Your task to perform on an android device: Go to Wikipedia Image 0: 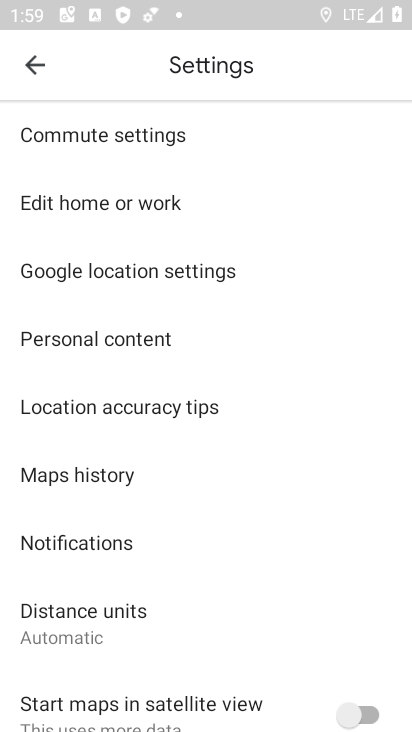
Step 0: press home button
Your task to perform on an android device: Go to Wikipedia Image 1: 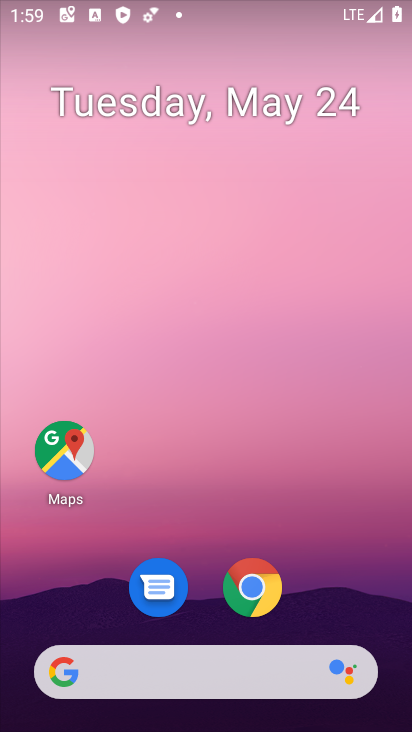
Step 1: drag from (158, 704) to (134, 147)
Your task to perform on an android device: Go to Wikipedia Image 2: 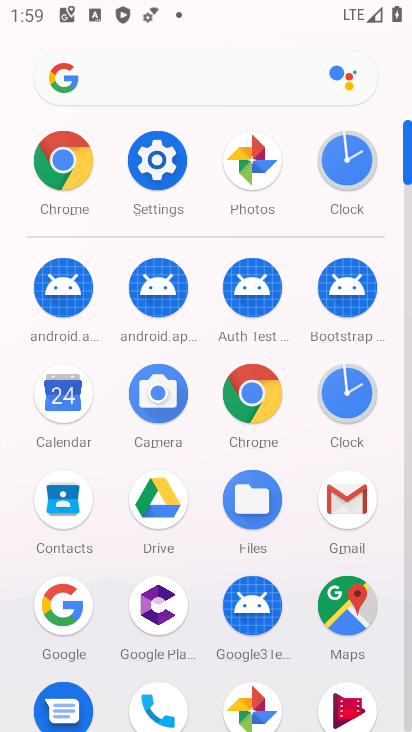
Step 2: click (270, 67)
Your task to perform on an android device: Go to Wikipedia Image 3: 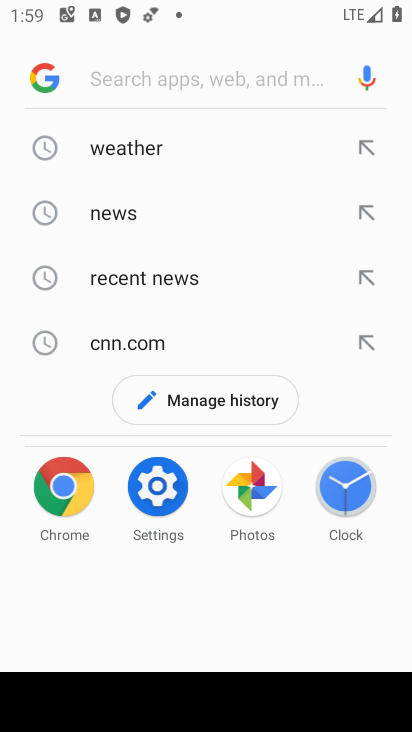
Step 3: type "wikipedia"
Your task to perform on an android device: Go to Wikipedia Image 4: 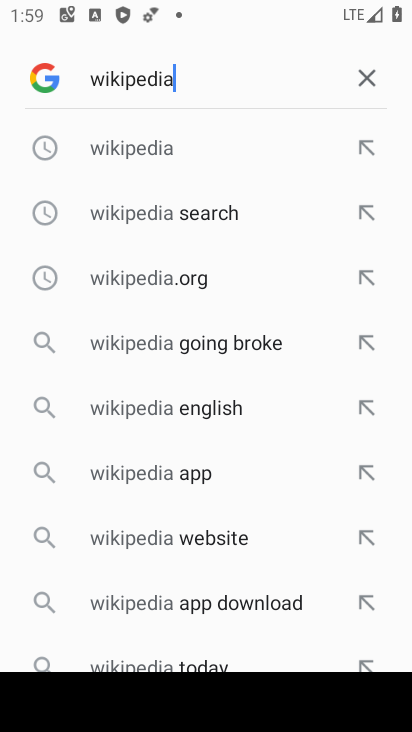
Step 4: click (209, 153)
Your task to perform on an android device: Go to Wikipedia Image 5: 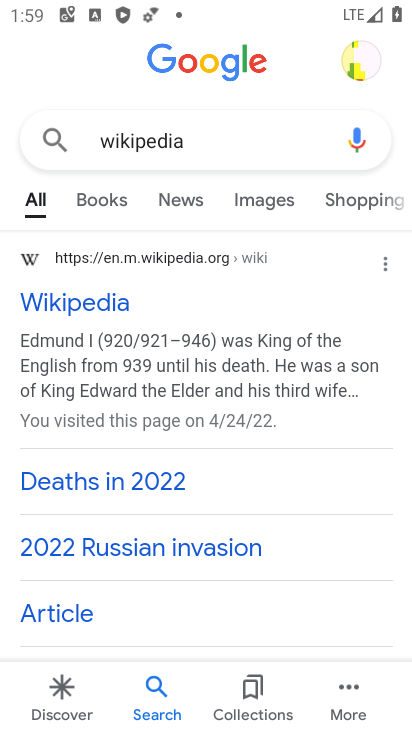
Step 5: click (109, 253)
Your task to perform on an android device: Go to Wikipedia Image 6: 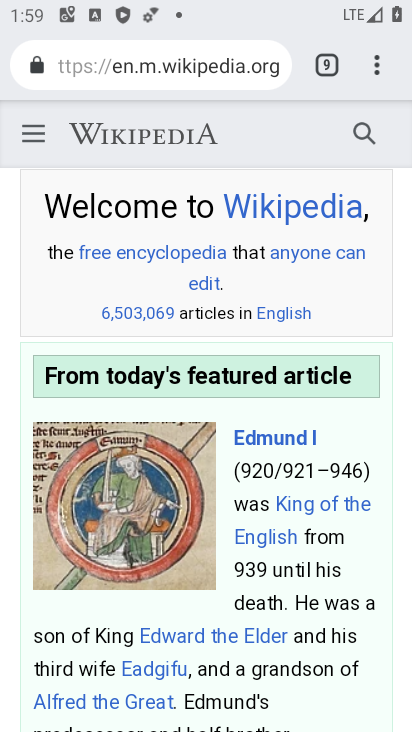
Step 6: task complete